Your task to perform on an android device: Open sound settings Image 0: 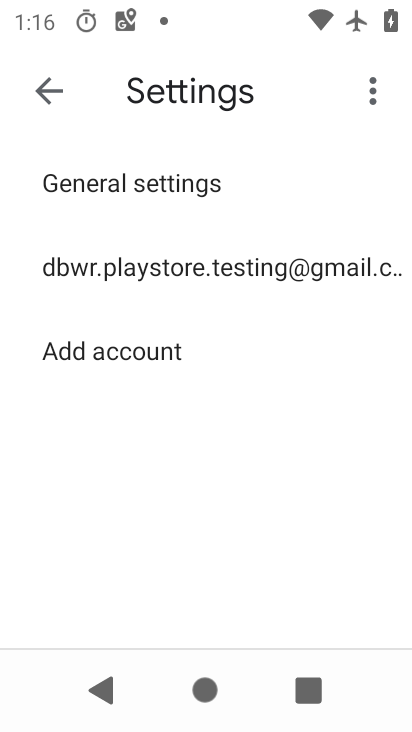
Step 0: press home button
Your task to perform on an android device: Open sound settings Image 1: 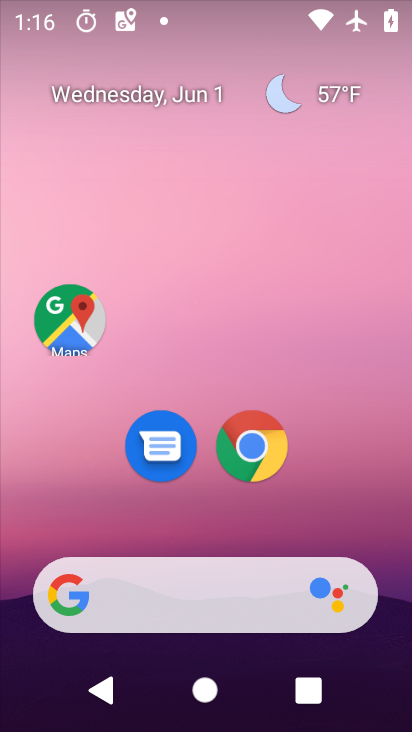
Step 1: drag from (207, 524) to (226, 199)
Your task to perform on an android device: Open sound settings Image 2: 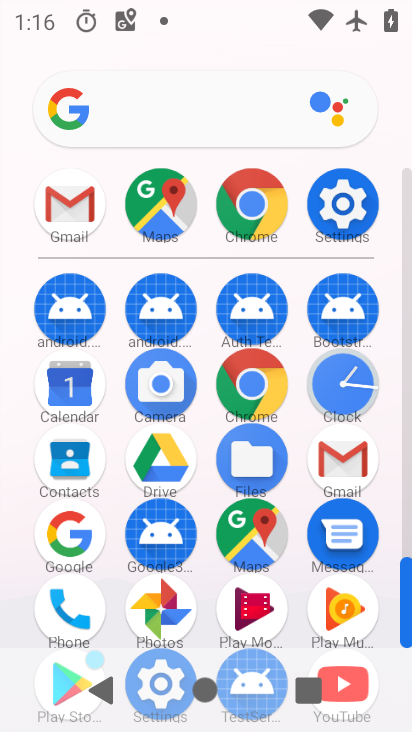
Step 2: drag from (204, 177) to (215, 69)
Your task to perform on an android device: Open sound settings Image 3: 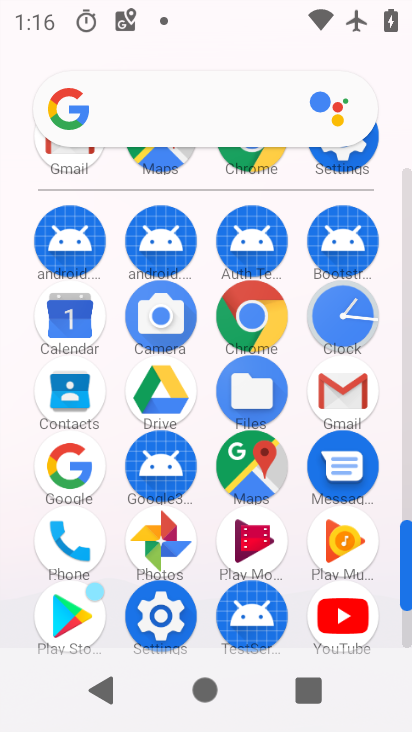
Step 3: click (166, 617)
Your task to perform on an android device: Open sound settings Image 4: 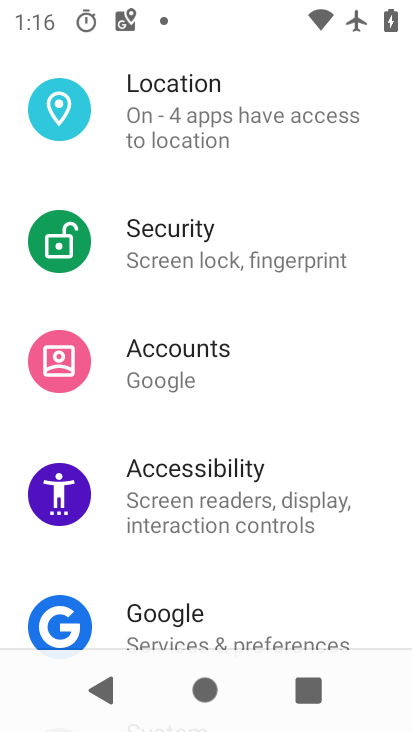
Step 4: drag from (219, 175) to (197, 514)
Your task to perform on an android device: Open sound settings Image 5: 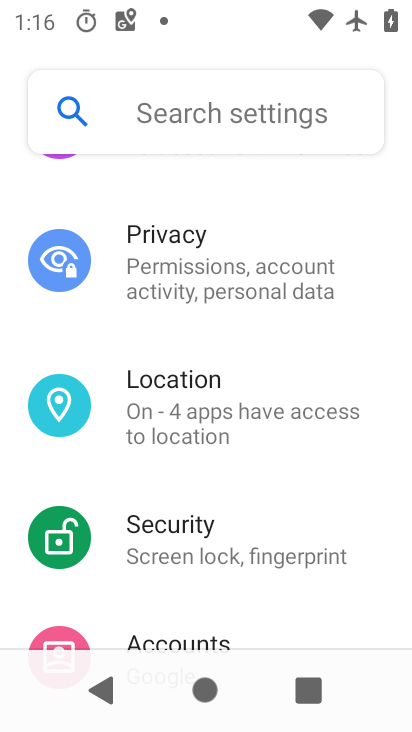
Step 5: drag from (207, 246) to (252, 484)
Your task to perform on an android device: Open sound settings Image 6: 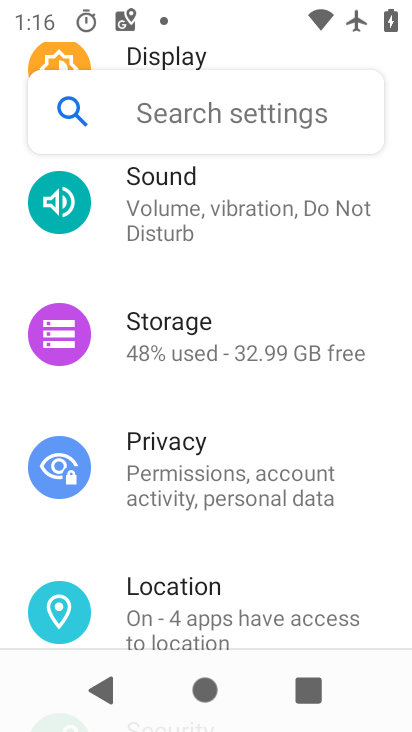
Step 6: click (219, 216)
Your task to perform on an android device: Open sound settings Image 7: 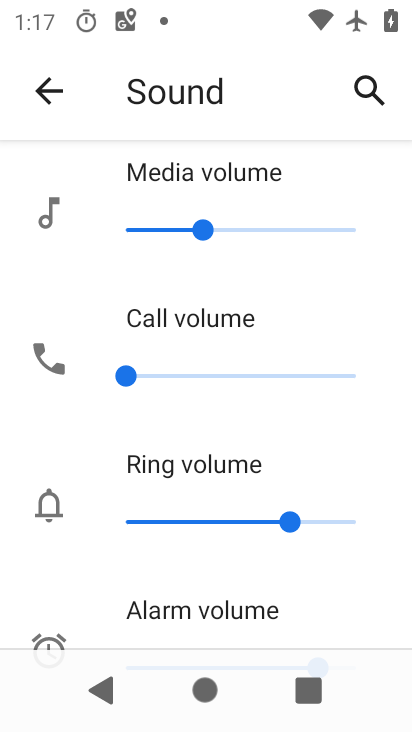
Step 7: task complete